Your task to perform on an android device: Check the weather Image 0: 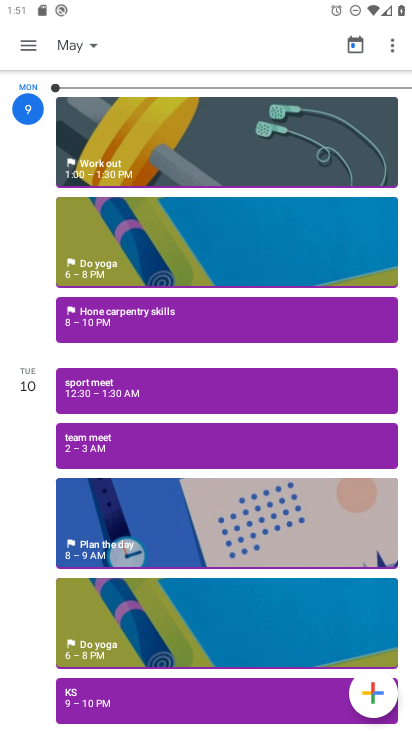
Step 0: press home button
Your task to perform on an android device: Check the weather Image 1: 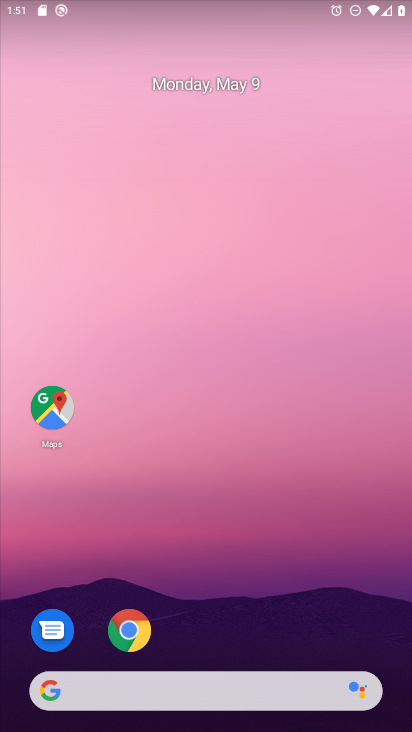
Step 1: drag from (228, 713) to (268, 245)
Your task to perform on an android device: Check the weather Image 2: 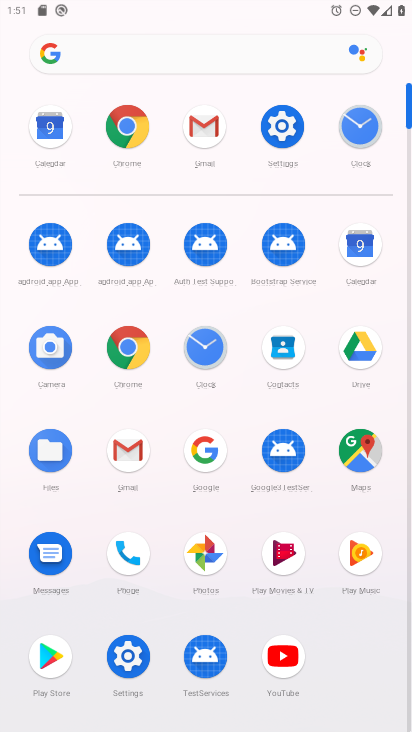
Step 2: click (154, 51)
Your task to perform on an android device: Check the weather Image 3: 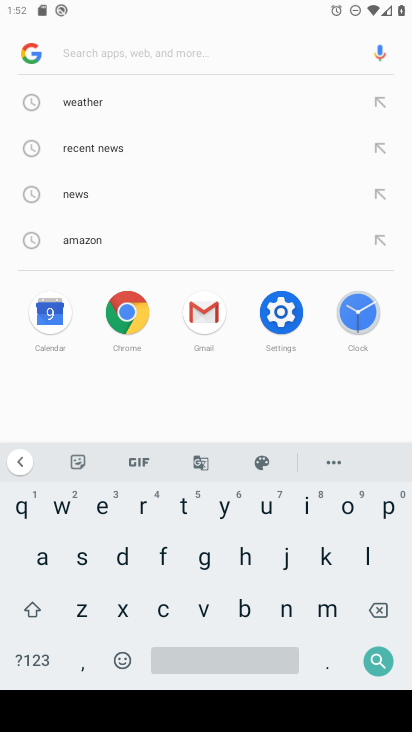
Step 3: click (141, 96)
Your task to perform on an android device: Check the weather Image 4: 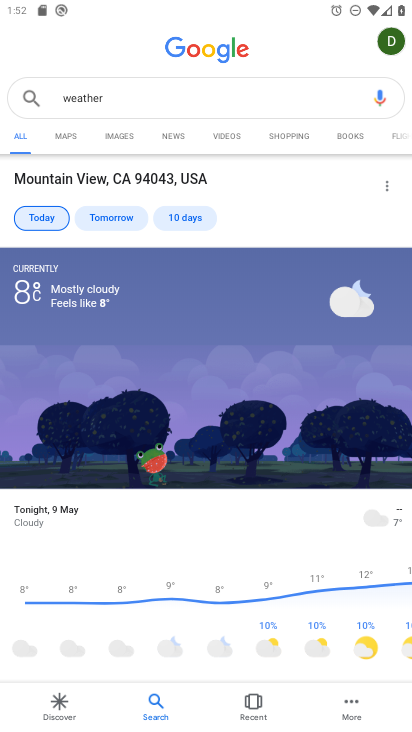
Step 4: task complete